Your task to perform on an android device: search for starred emails in the gmail app Image 0: 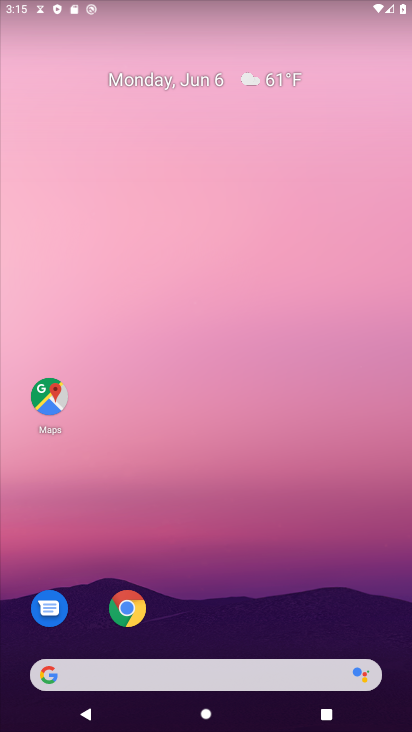
Step 0: drag from (282, 483) to (283, 0)
Your task to perform on an android device: search for starred emails in the gmail app Image 1: 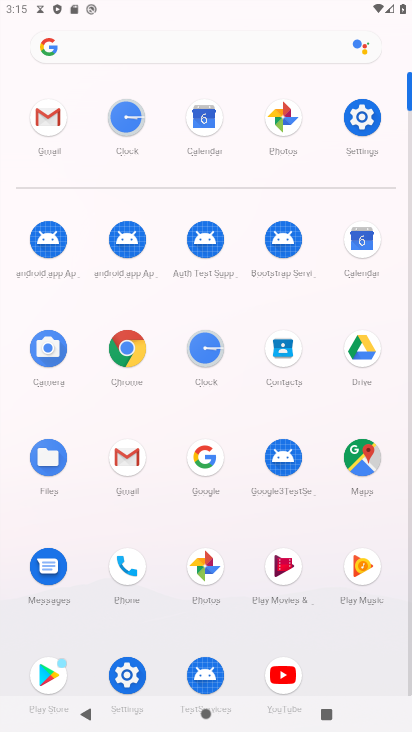
Step 1: click (54, 123)
Your task to perform on an android device: search for starred emails in the gmail app Image 2: 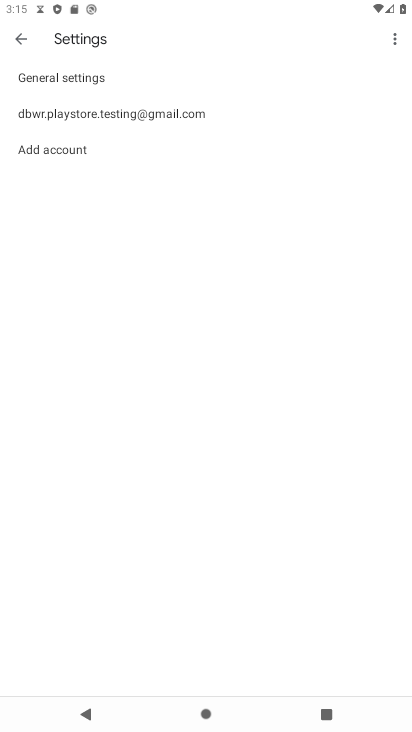
Step 2: click (21, 33)
Your task to perform on an android device: search for starred emails in the gmail app Image 3: 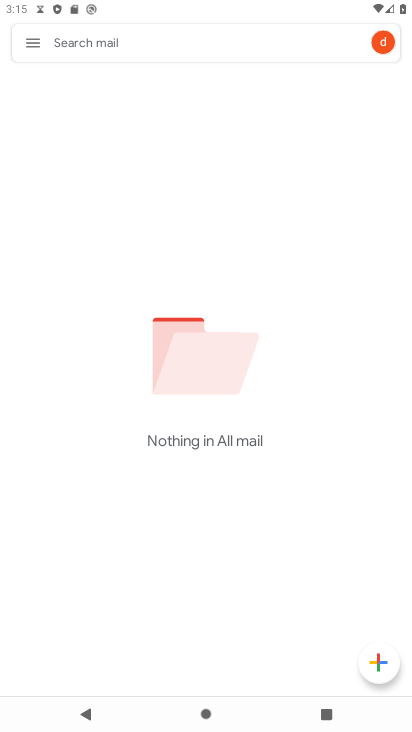
Step 3: click (32, 47)
Your task to perform on an android device: search for starred emails in the gmail app Image 4: 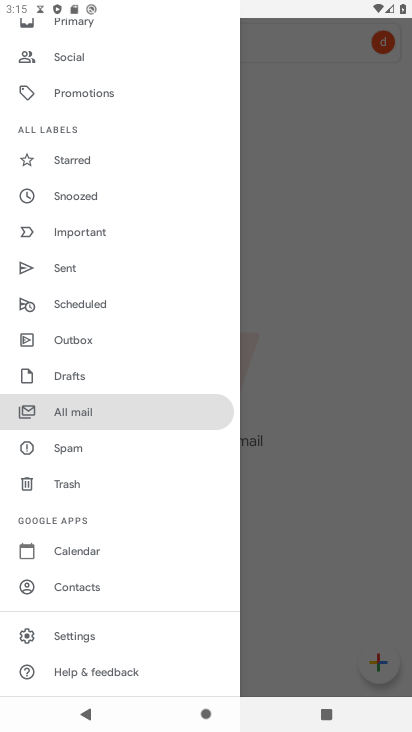
Step 4: click (74, 162)
Your task to perform on an android device: search for starred emails in the gmail app Image 5: 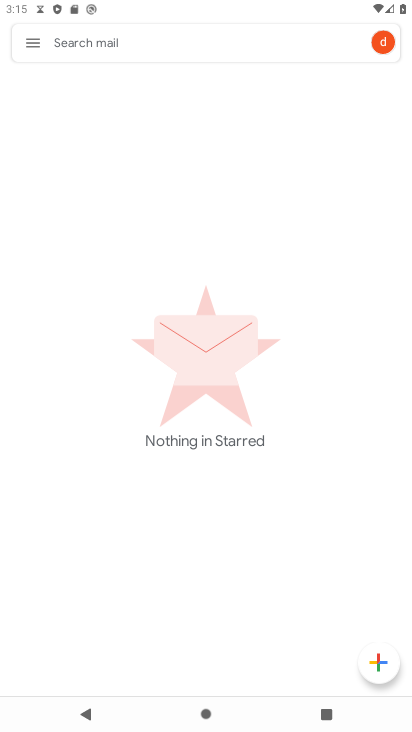
Step 5: task complete